Your task to perform on an android device: Open Reddit.com Image 0: 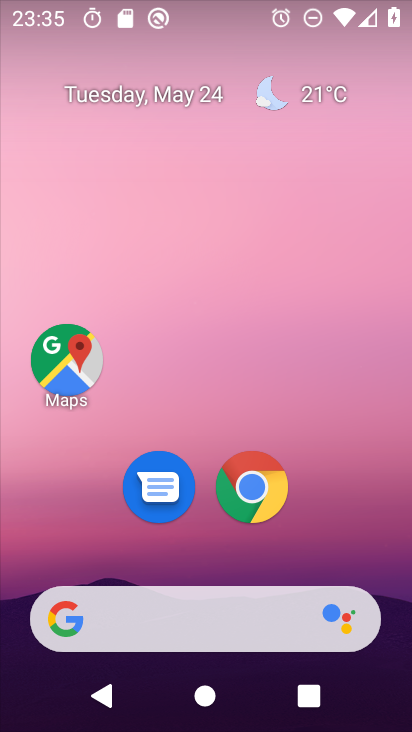
Step 0: click (254, 494)
Your task to perform on an android device: Open Reddit.com Image 1: 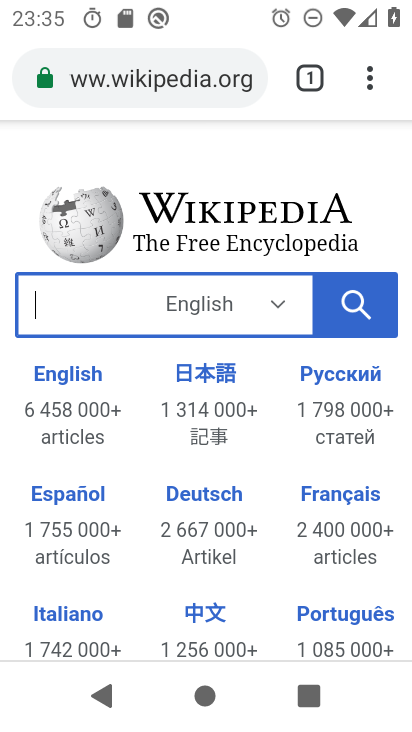
Step 1: click (127, 88)
Your task to perform on an android device: Open Reddit.com Image 2: 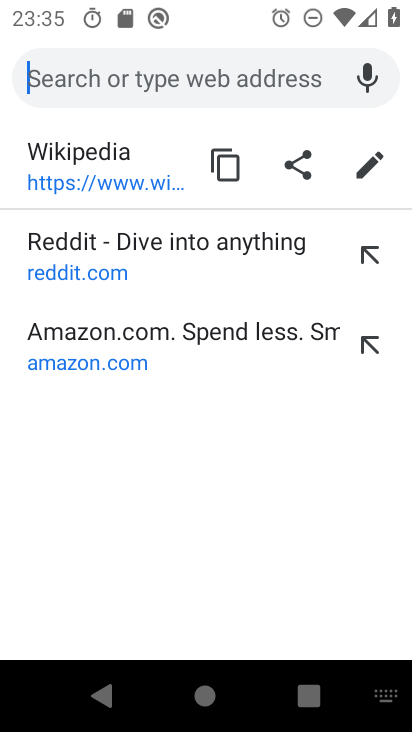
Step 2: click (63, 252)
Your task to perform on an android device: Open Reddit.com Image 3: 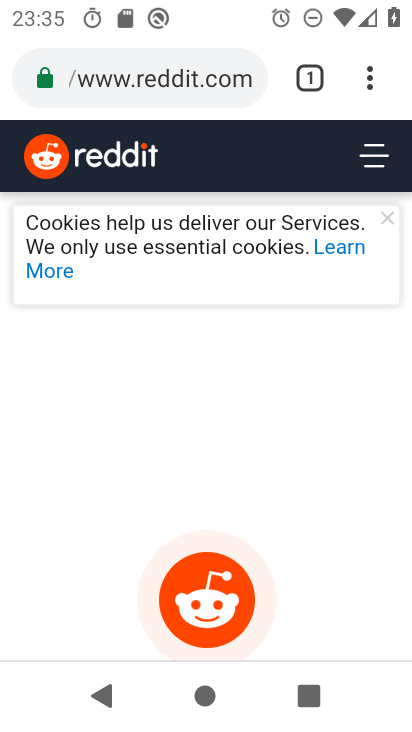
Step 3: task complete